Your task to perform on an android device: Go to CNN.com Image 0: 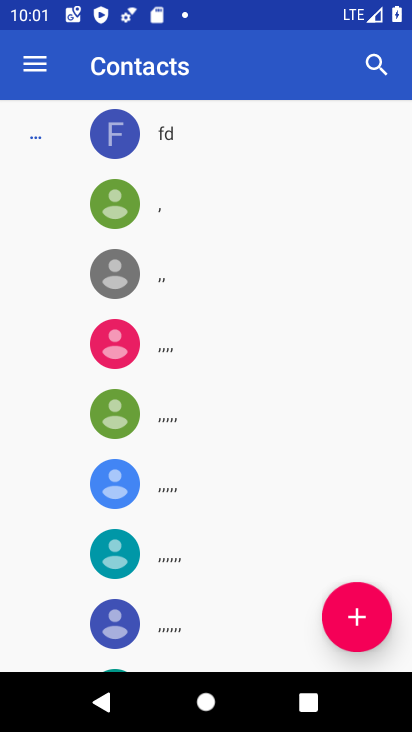
Step 0: press back button
Your task to perform on an android device: Go to CNN.com Image 1: 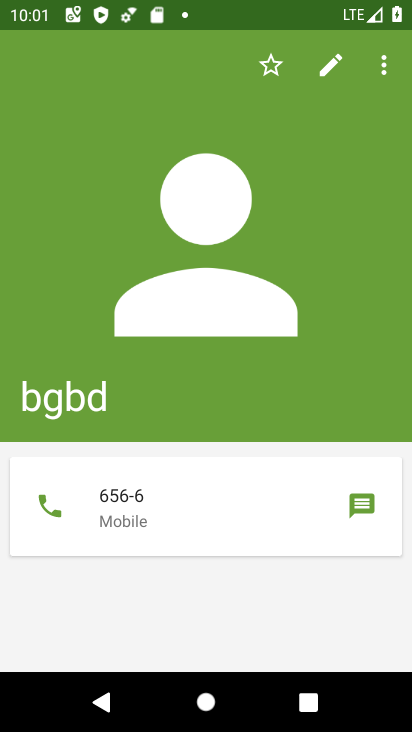
Step 1: press back button
Your task to perform on an android device: Go to CNN.com Image 2: 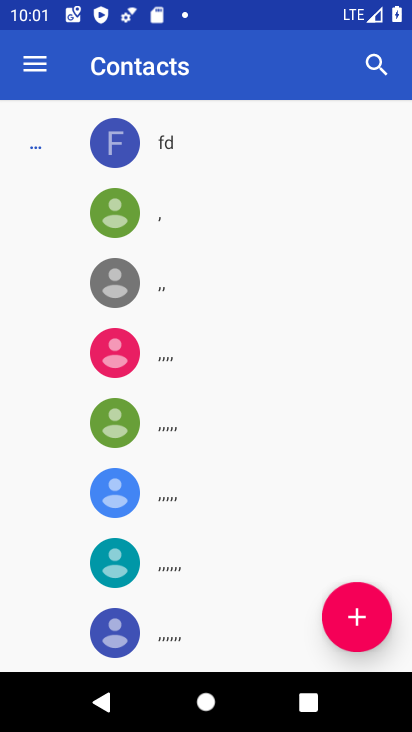
Step 2: press back button
Your task to perform on an android device: Go to CNN.com Image 3: 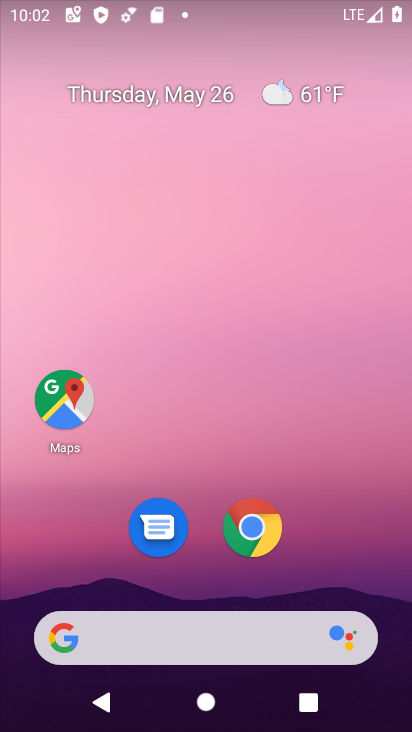
Step 3: click (256, 525)
Your task to perform on an android device: Go to CNN.com Image 4: 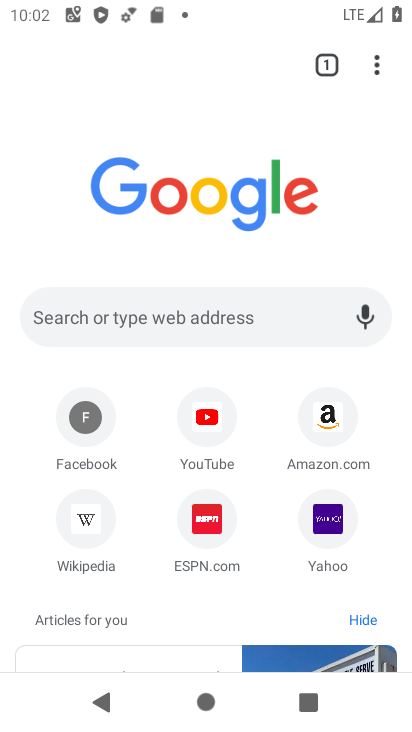
Step 4: click (144, 311)
Your task to perform on an android device: Go to CNN.com Image 5: 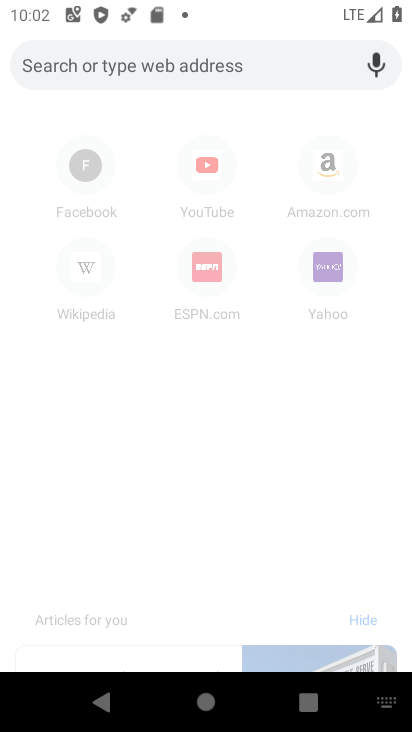
Step 5: type "cnn.com"
Your task to perform on an android device: Go to CNN.com Image 6: 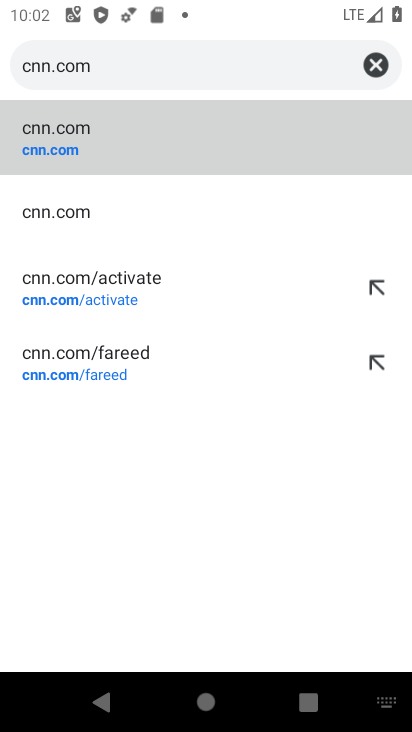
Step 6: click (79, 145)
Your task to perform on an android device: Go to CNN.com Image 7: 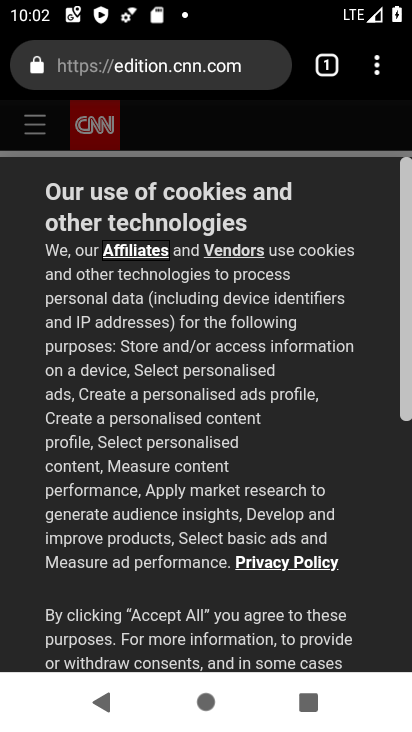
Step 7: task complete